Your task to perform on an android device: What's the news this morning? Image 0: 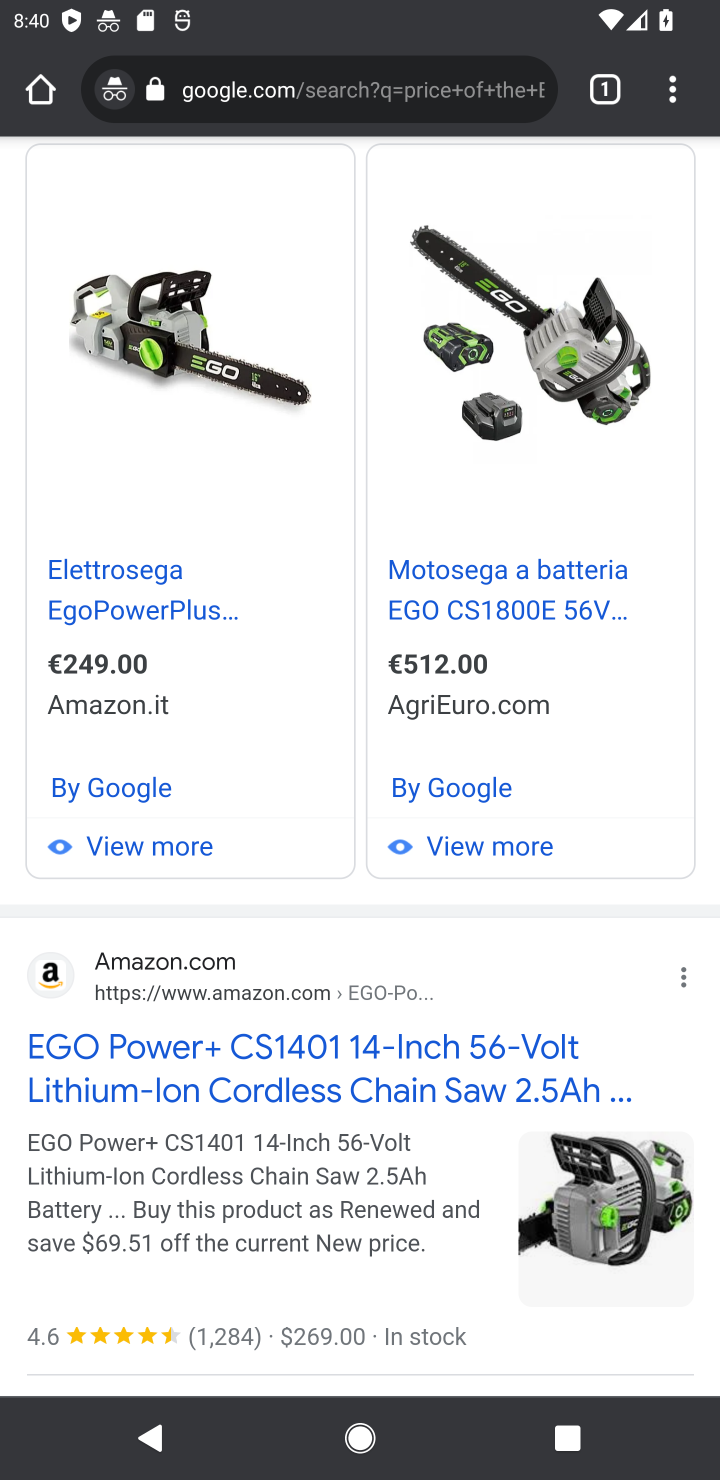
Step 0: press home button
Your task to perform on an android device: What's the news this morning? Image 1: 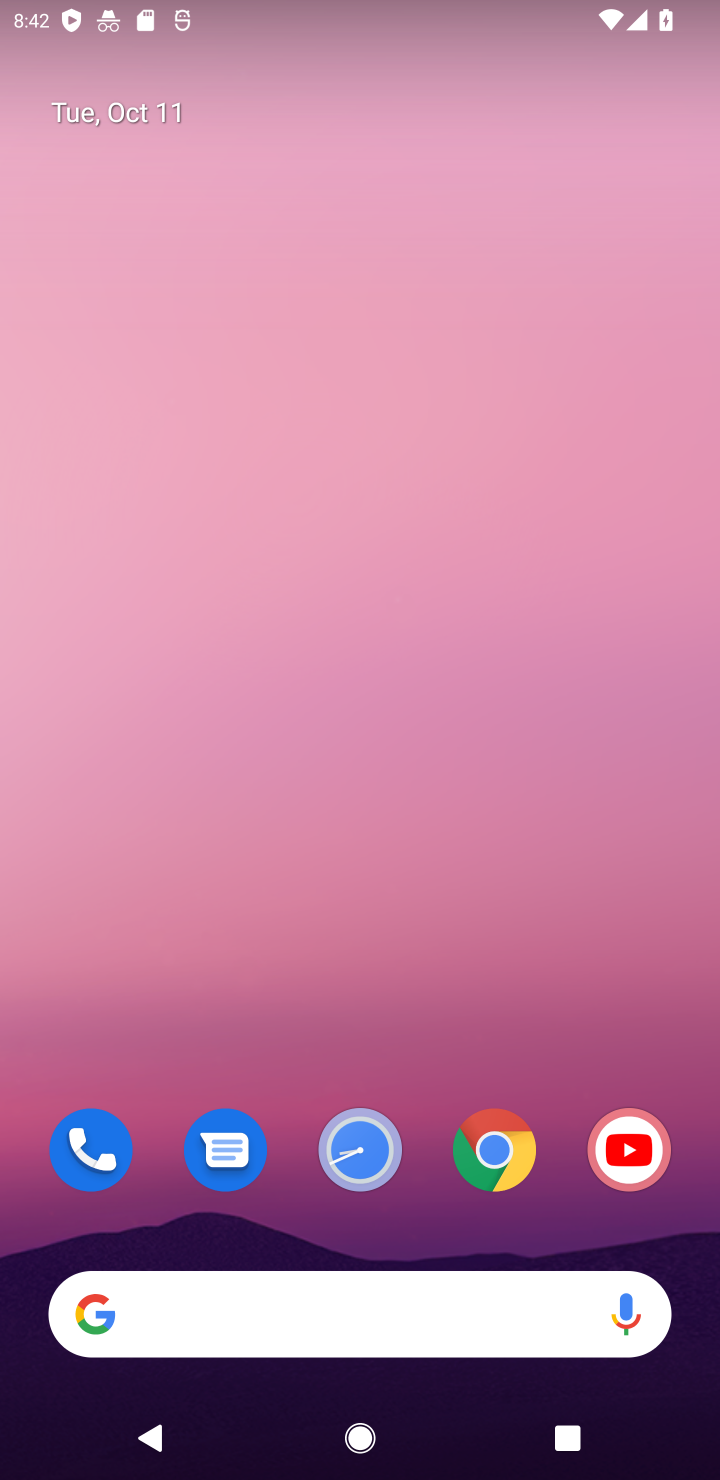
Step 1: click (489, 1152)
Your task to perform on an android device: What's the news this morning? Image 2: 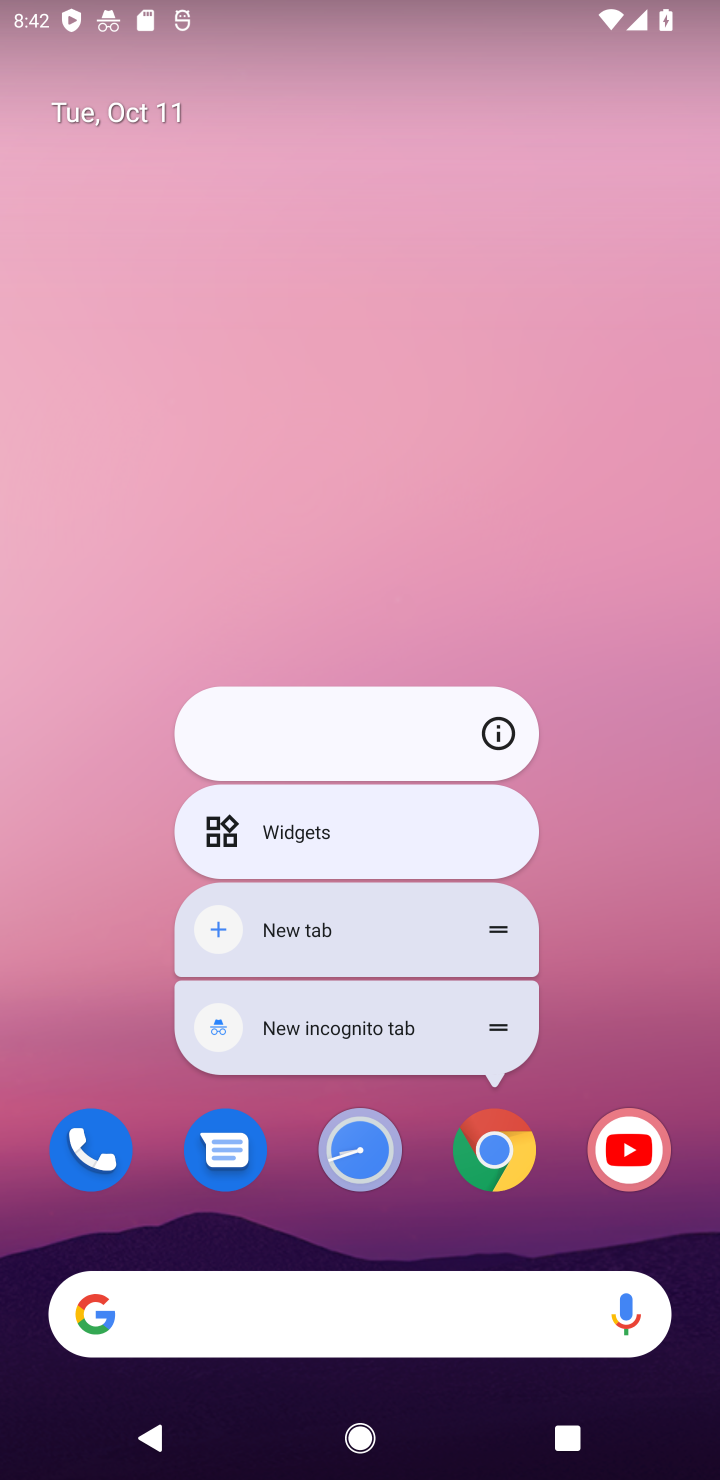
Step 2: click (489, 1164)
Your task to perform on an android device: What's the news this morning? Image 3: 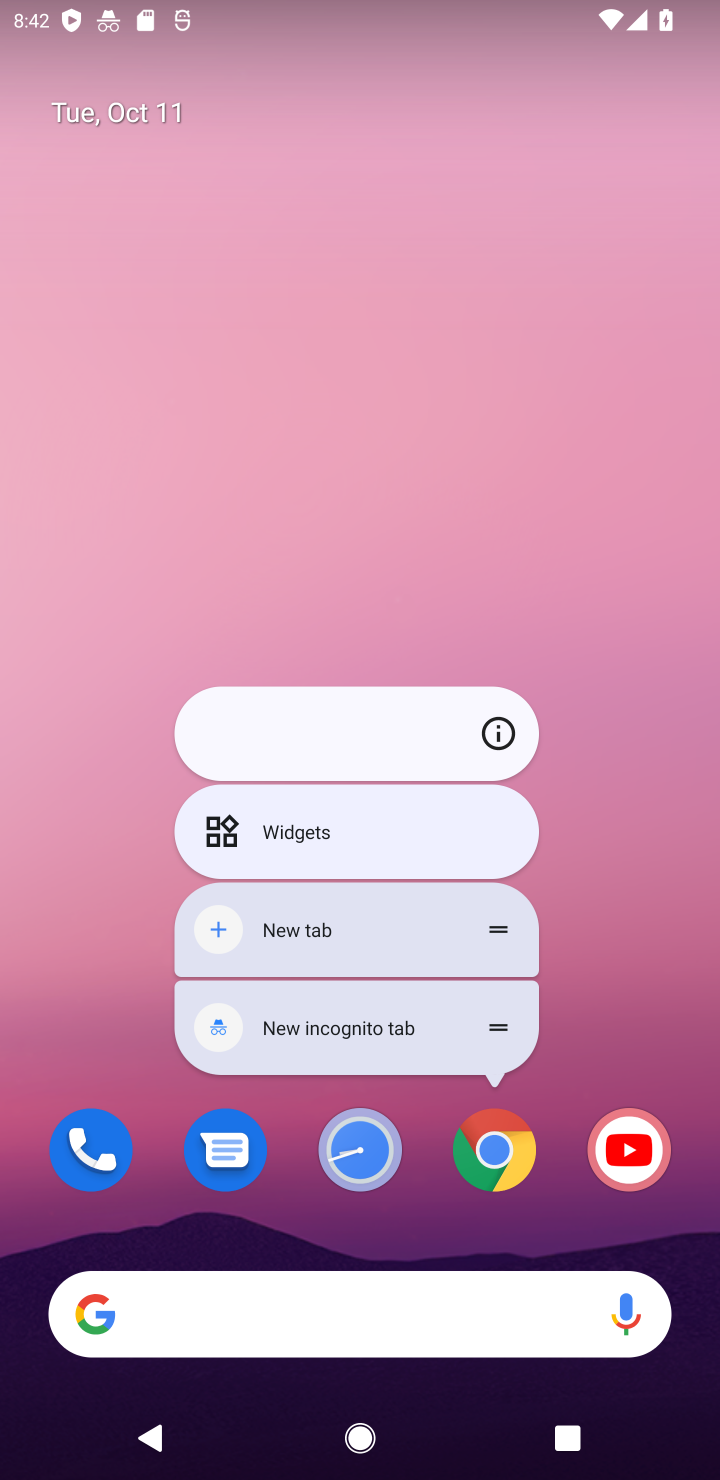
Step 3: click (489, 1164)
Your task to perform on an android device: What's the news this morning? Image 4: 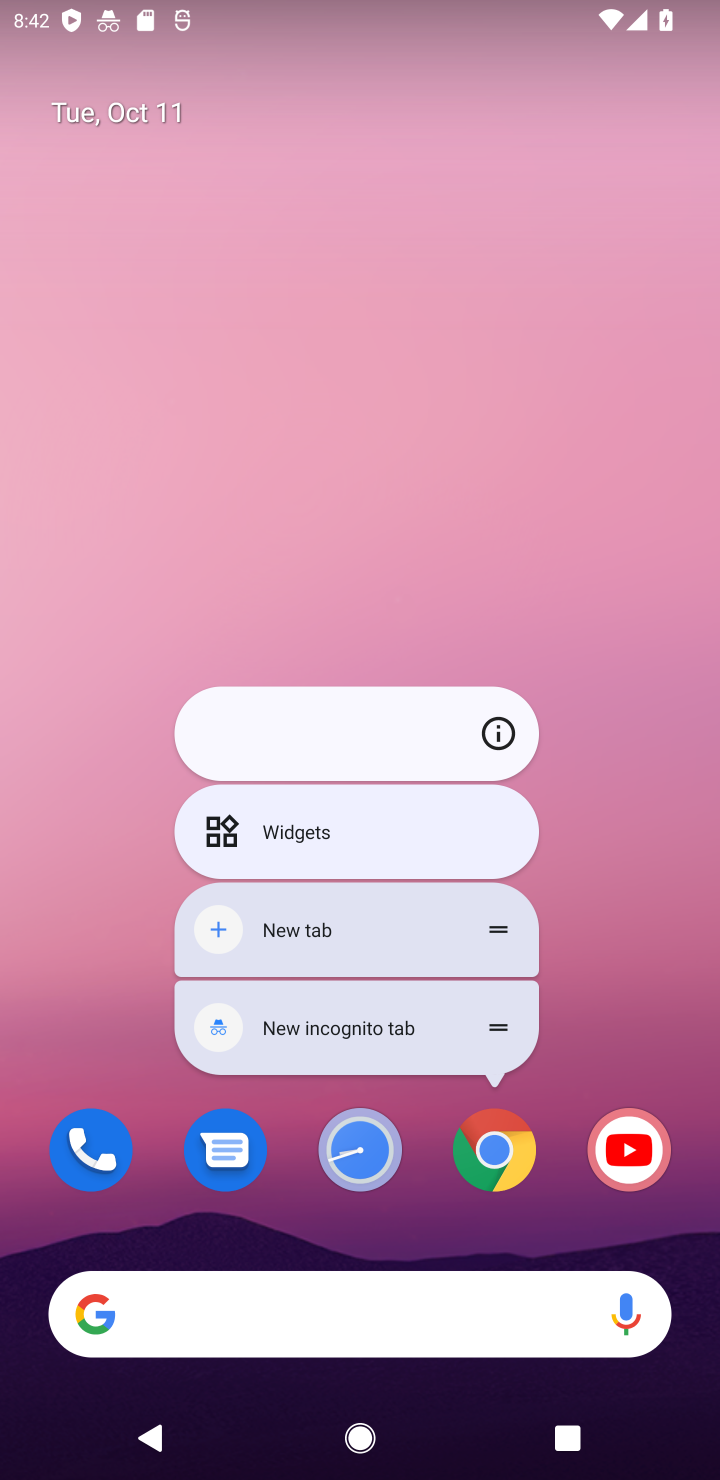
Step 4: click (493, 1160)
Your task to perform on an android device: What's the news this morning? Image 5: 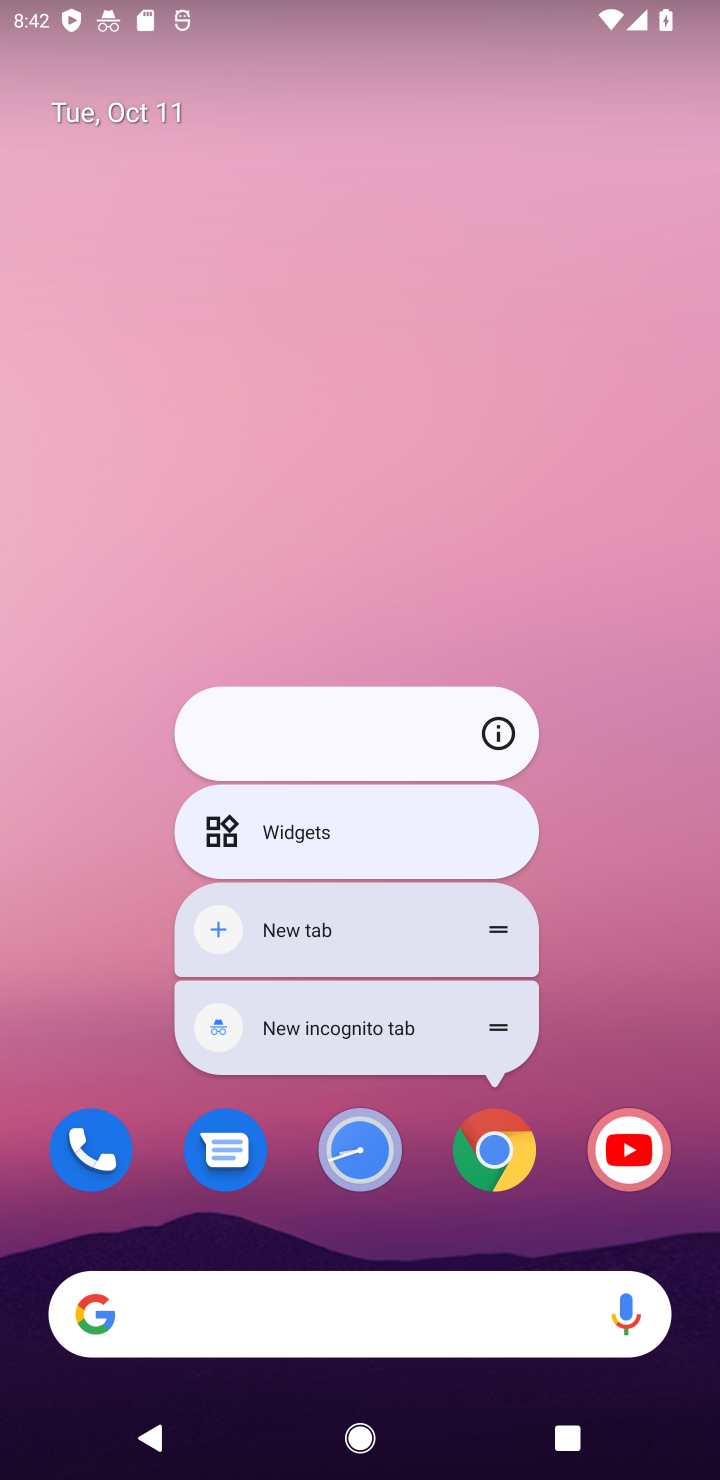
Step 5: click (497, 1140)
Your task to perform on an android device: What's the news this morning? Image 6: 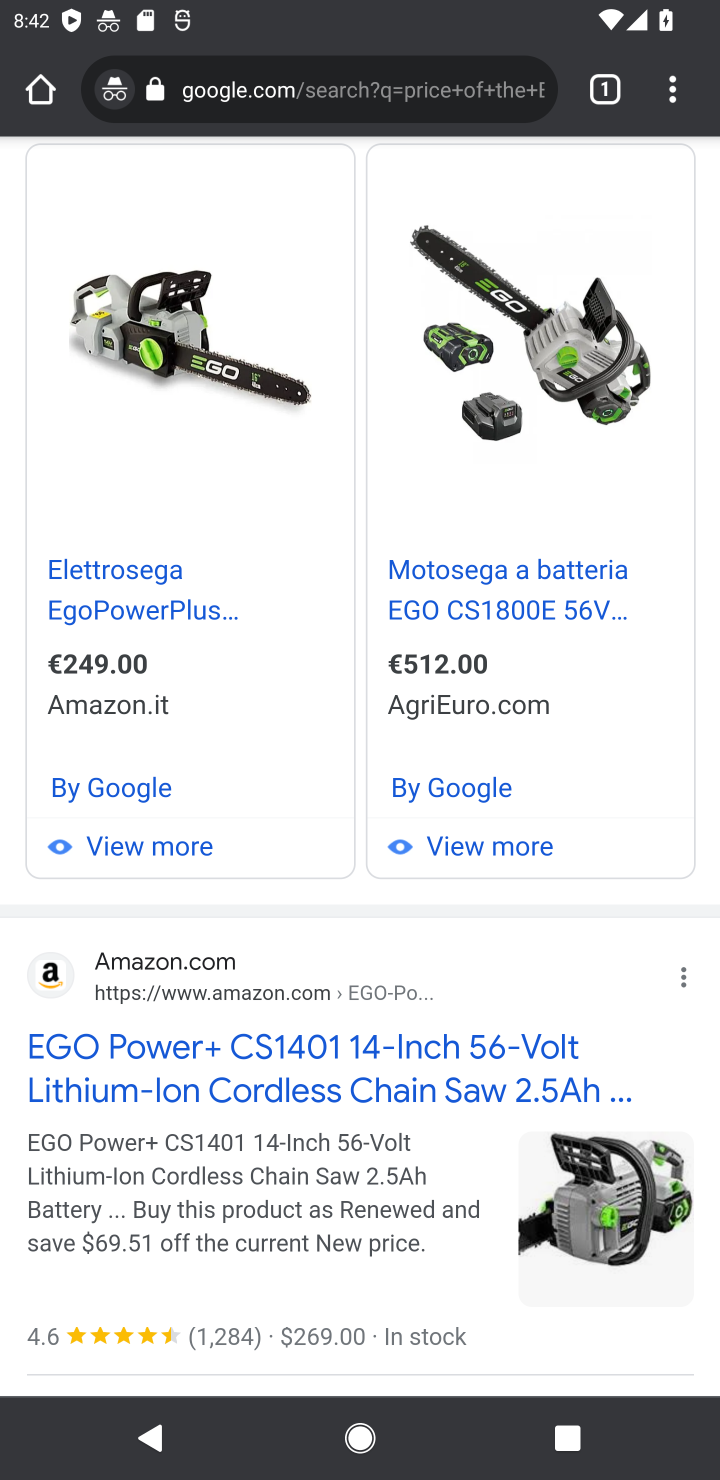
Step 6: click (345, 78)
Your task to perform on an android device: What's the news this morning? Image 7: 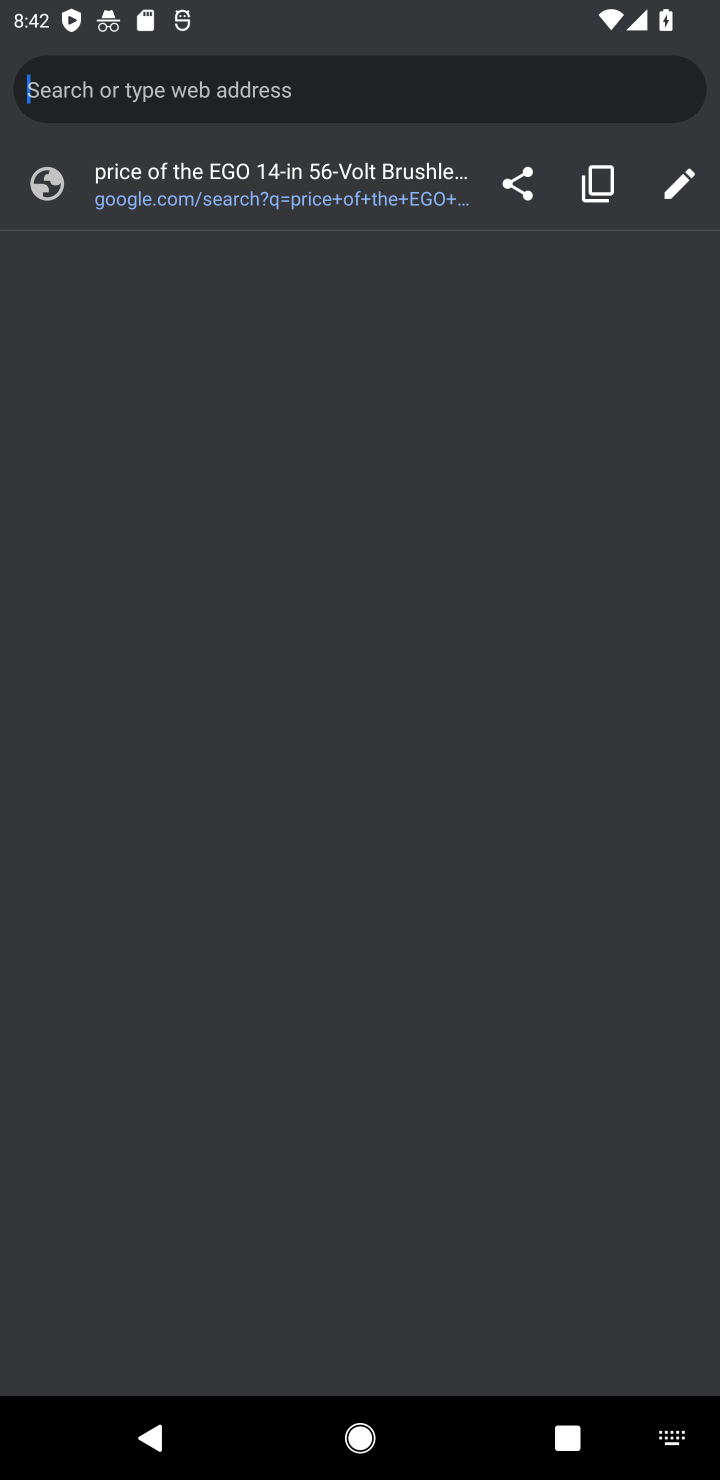
Step 7: type "morning news"
Your task to perform on an android device: What's the news this morning? Image 8: 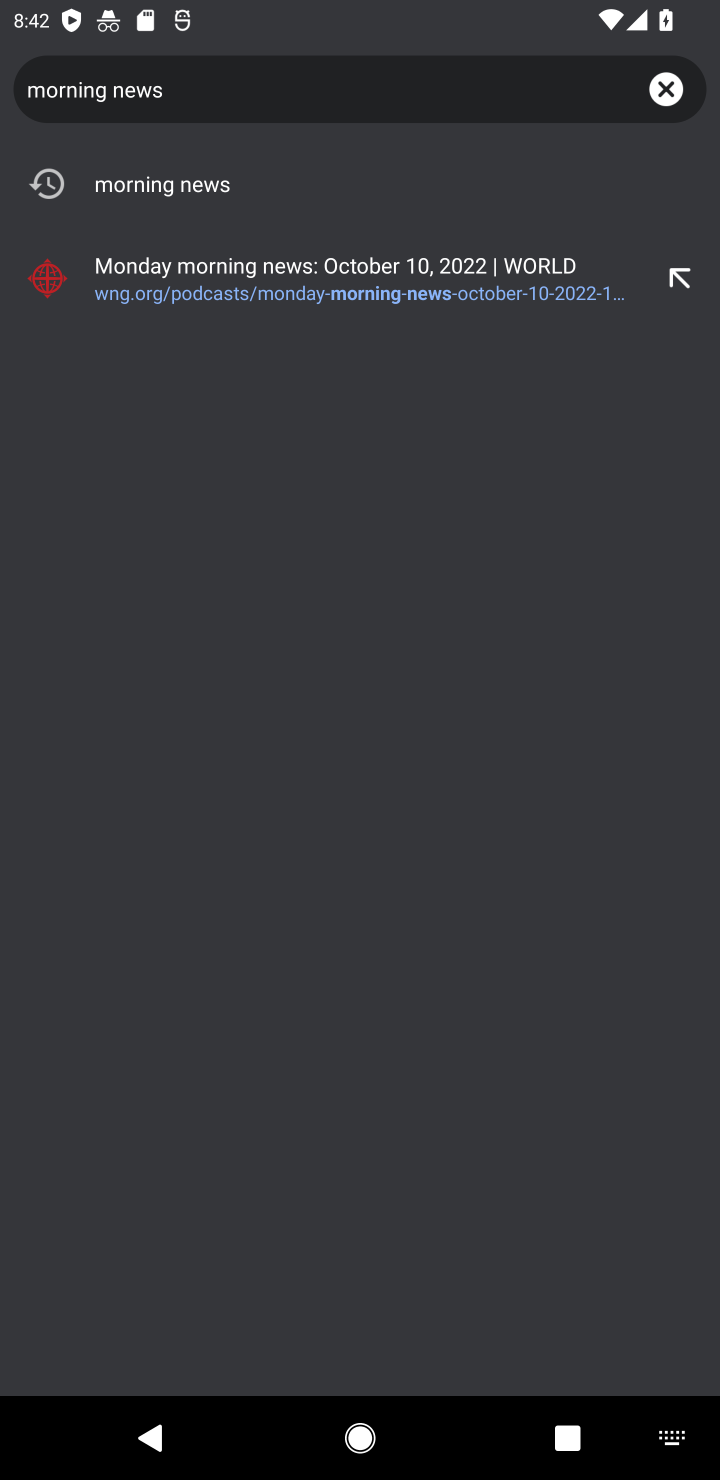
Step 8: click (142, 198)
Your task to perform on an android device: What's the news this morning? Image 9: 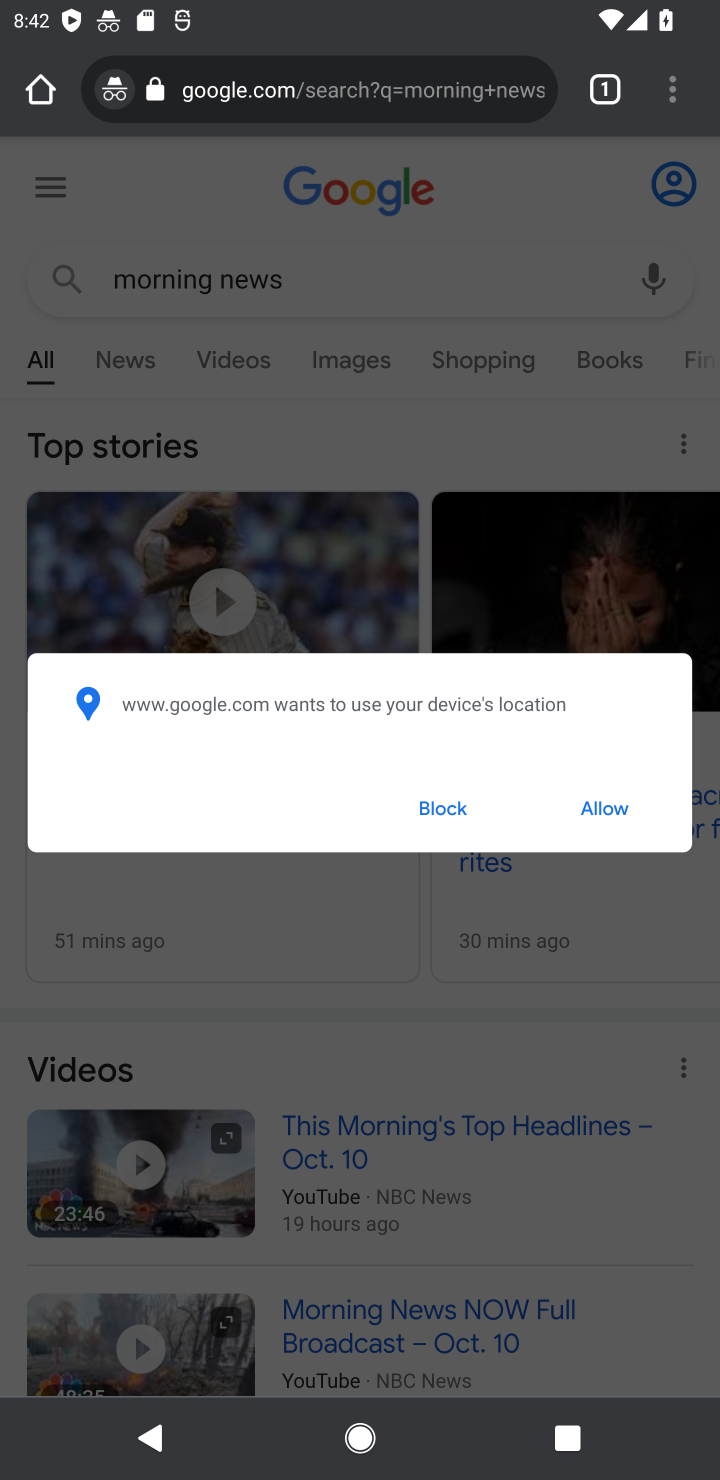
Step 9: click (426, 807)
Your task to perform on an android device: What's the news this morning? Image 10: 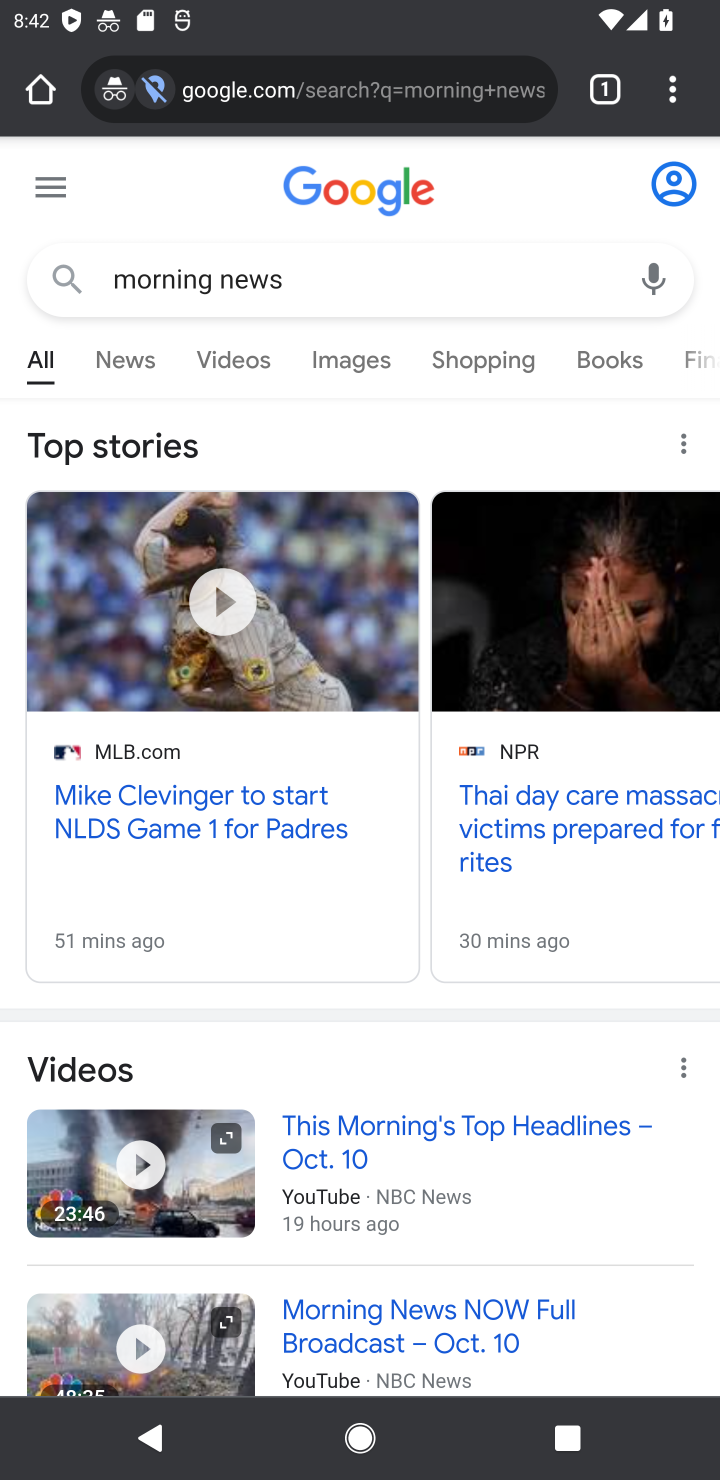
Step 10: drag from (412, 1210) to (434, 772)
Your task to perform on an android device: What's the news this morning? Image 11: 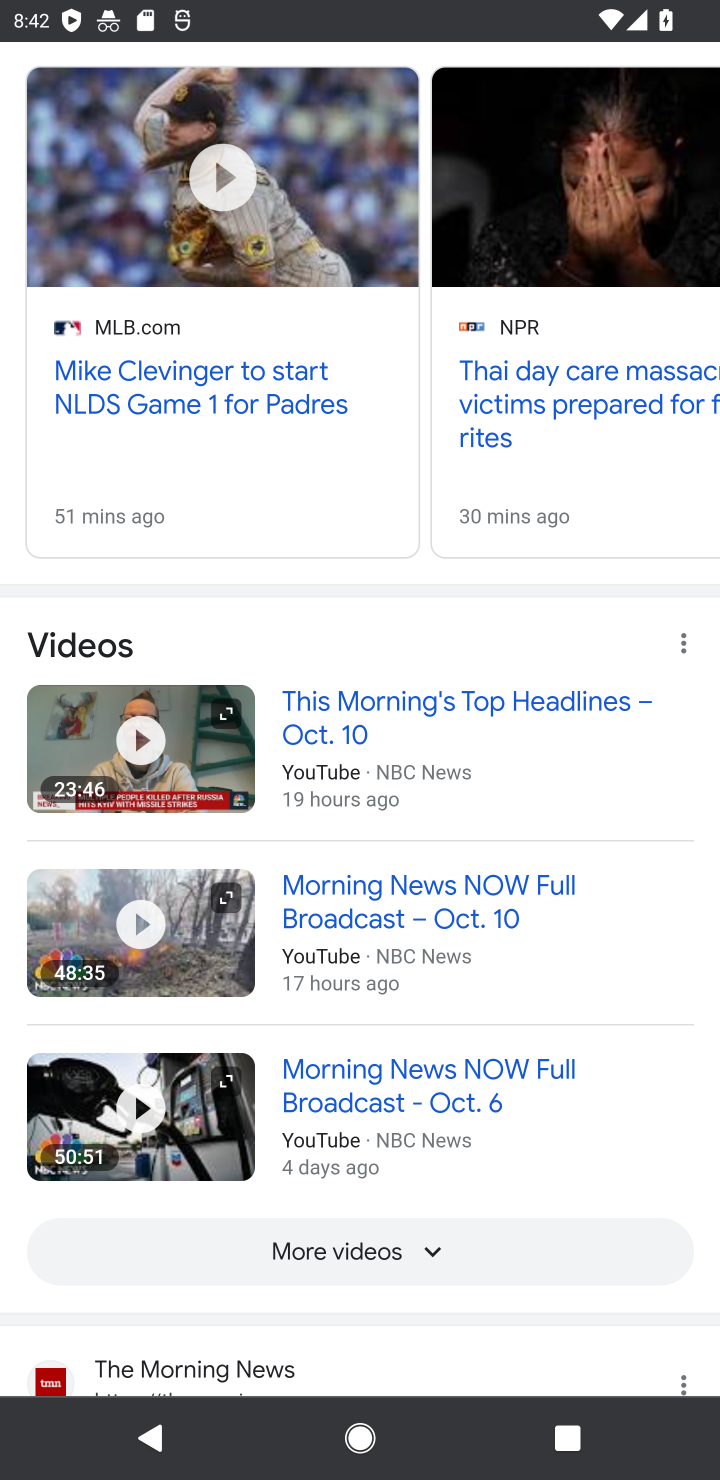
Step 11: drag from (379, 652) to (320, 1455)
Your task to perform on an android device: What's the news this morning? Image 12: 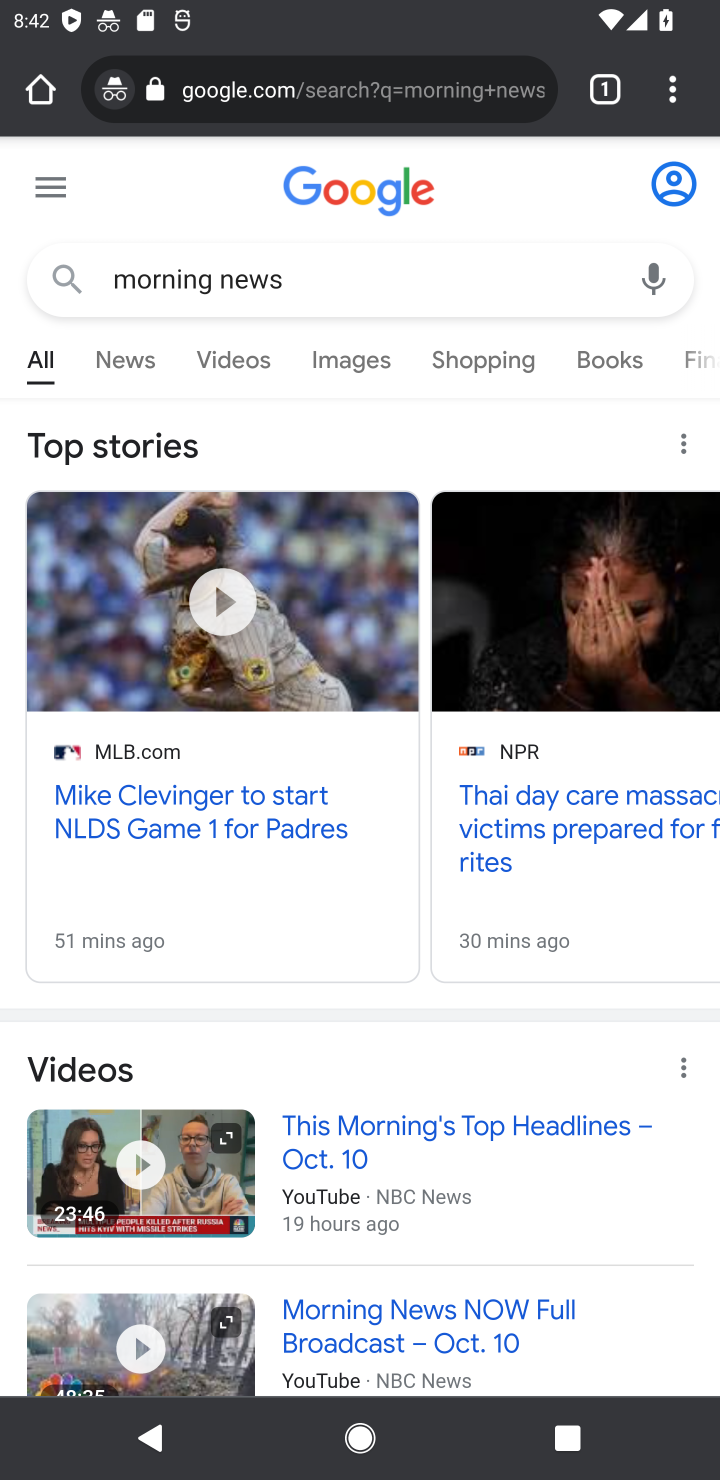
Step 12: click (120, 367)
Your task to perform on an android device: What's the news this morning? Image 13: 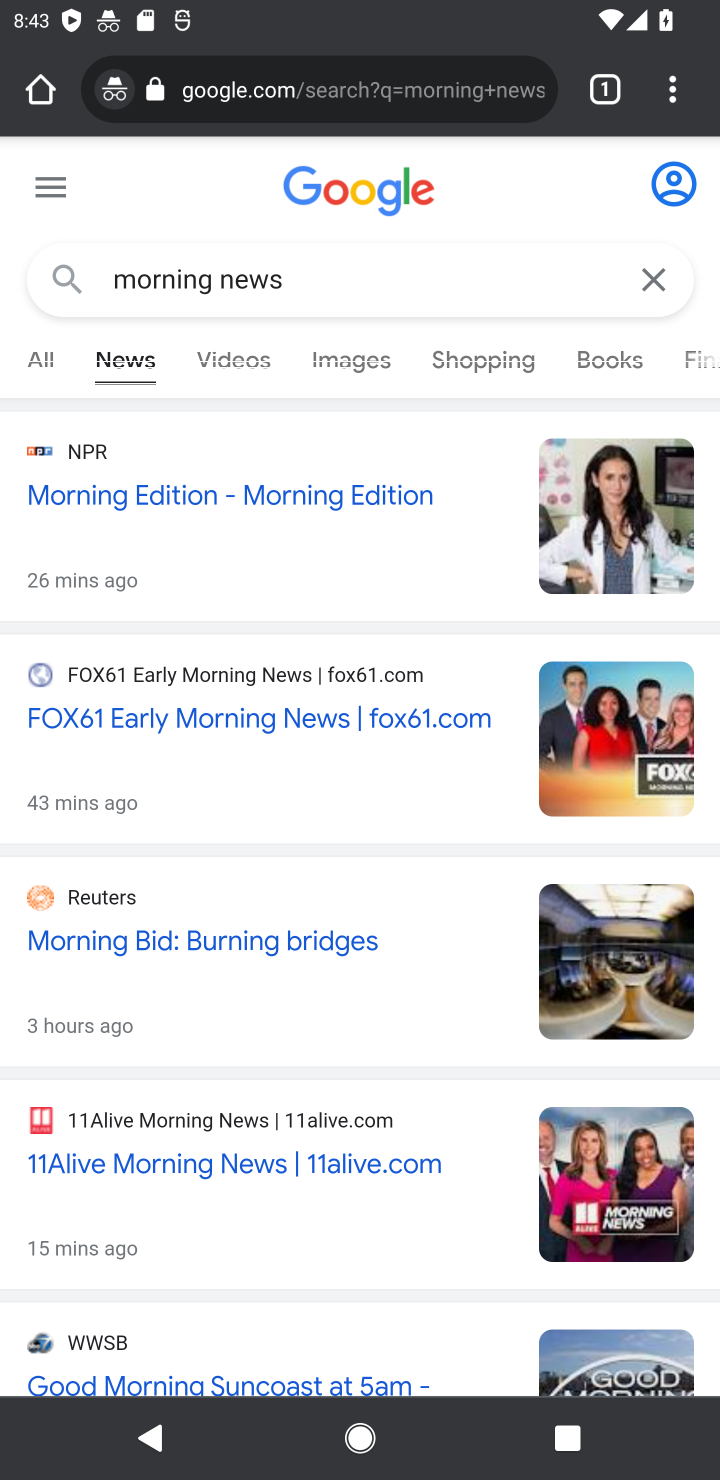
Step 13: click (175, 712)
Your task to perform on an android device: What's the news this morning? Image 14: 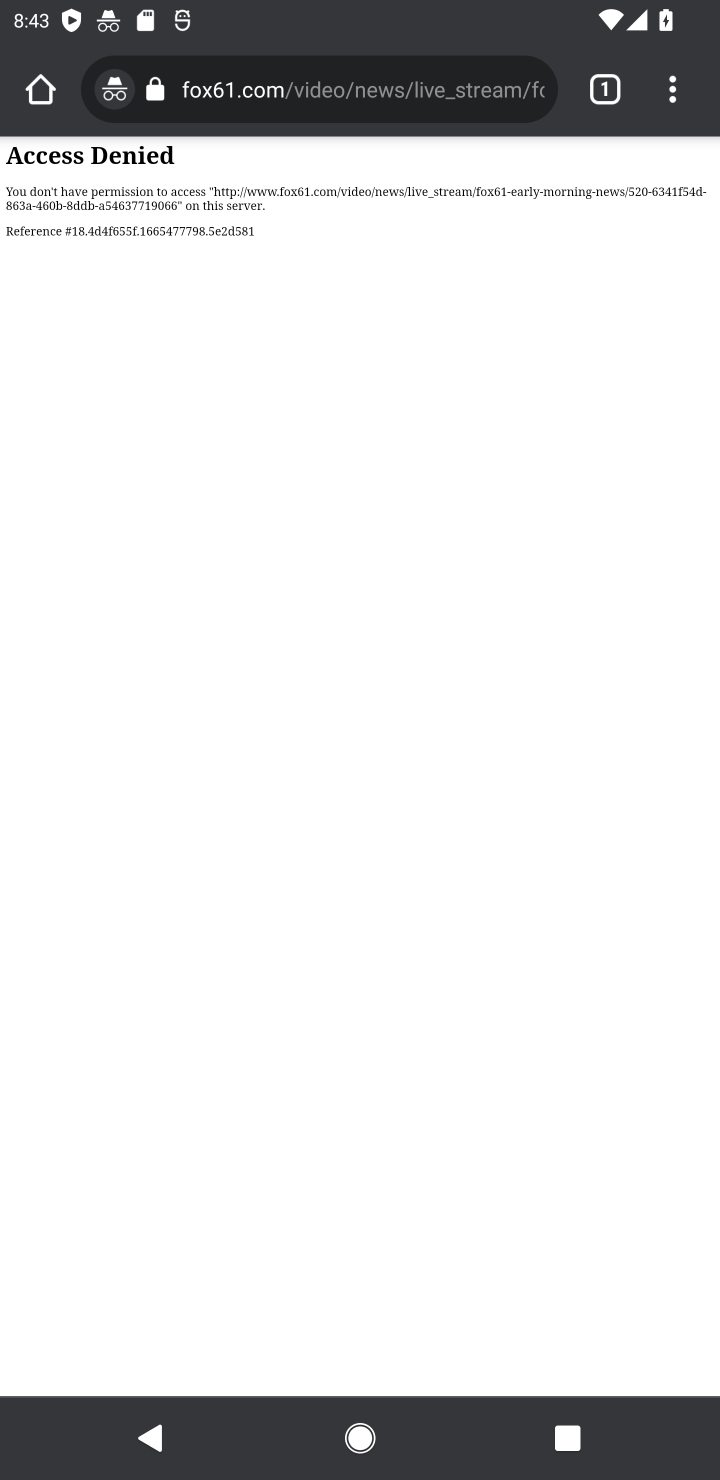
Step 14: press back button
Your task to perform on an android device: What's the news this morning? Image 15: 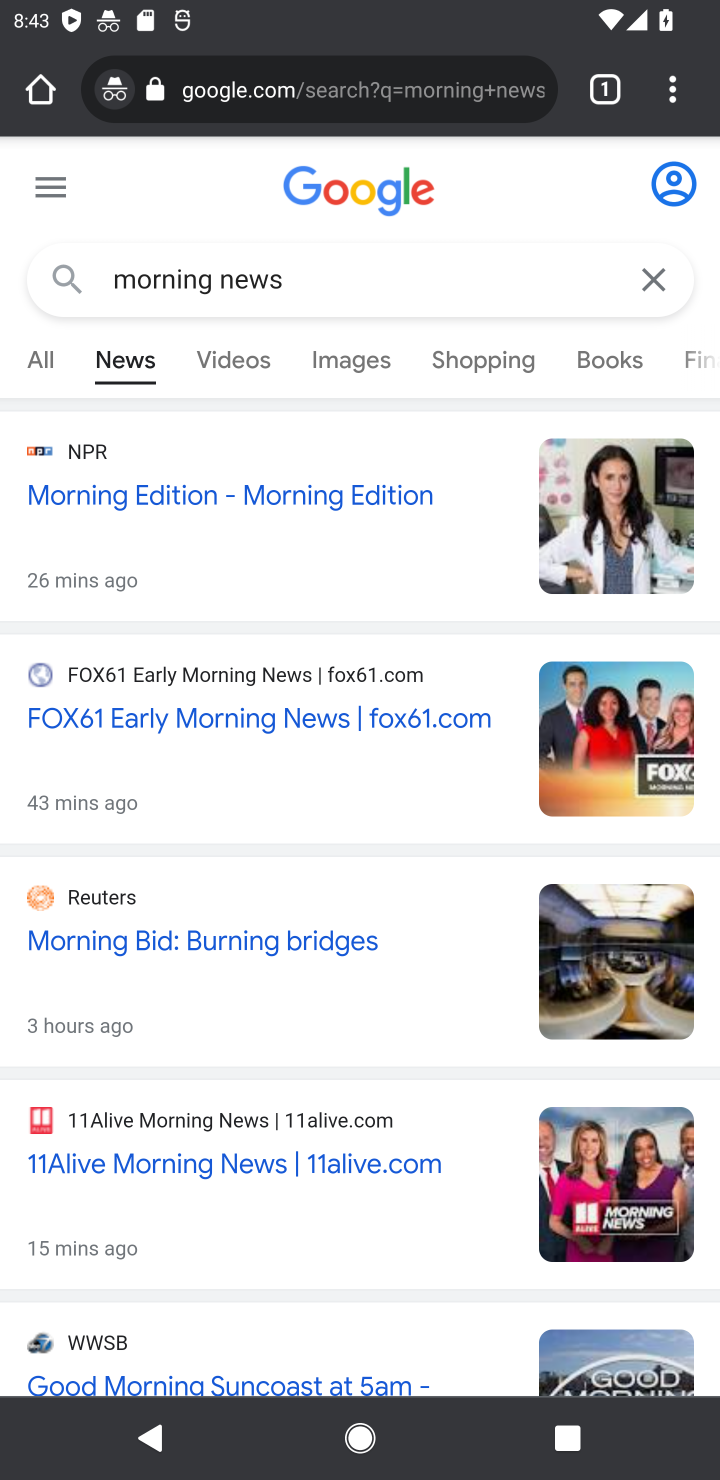
Step 15: click (195, 512)
Your task to perform on an android device: What's the news this morning? Image 16: 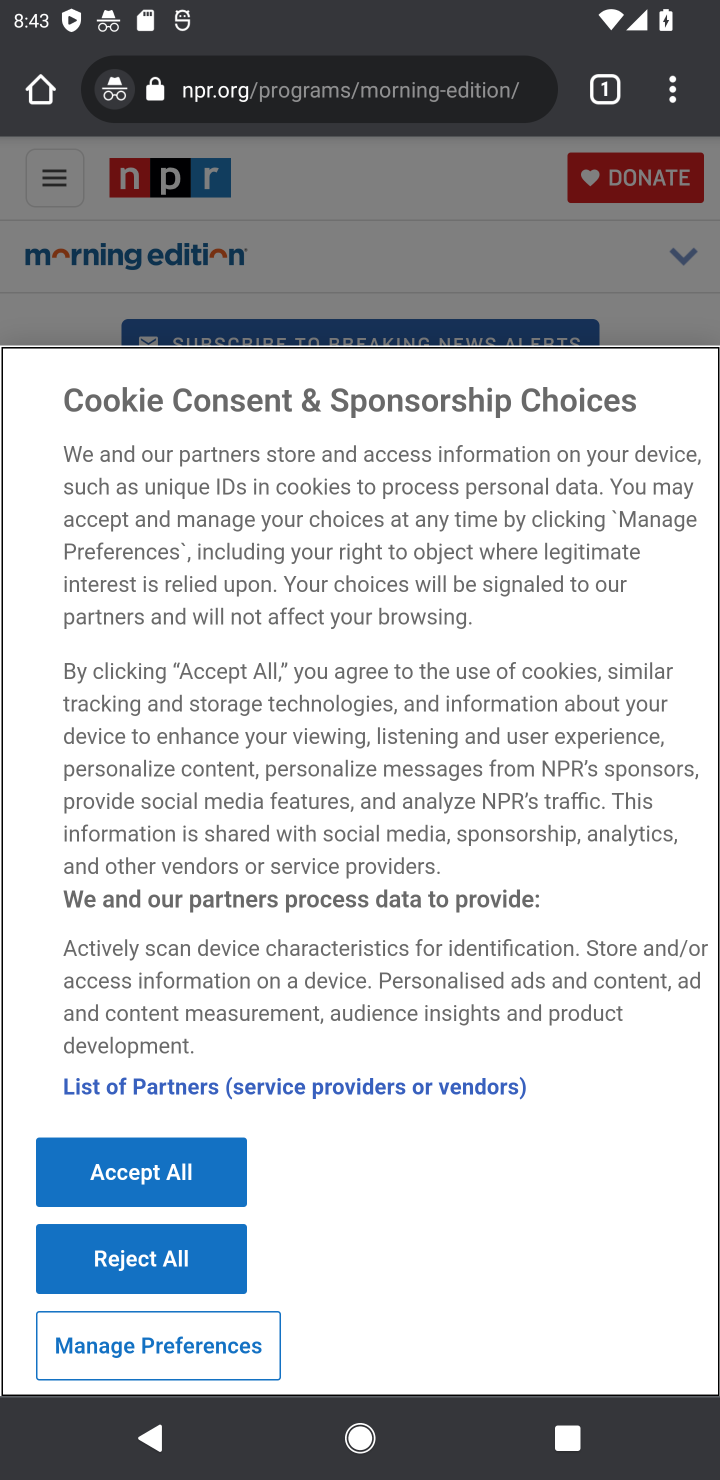
Step 16: task complete